Your task to perform on an android device: turn on priority inbox in the gmail app Image 0: 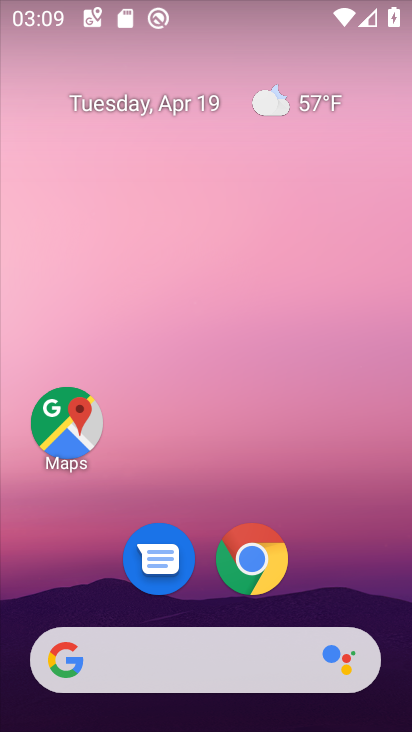
Step 0: drag from (208, 561) to (212, 96)
Your task to perform on an android device: turn on priority inbox in the gmail app Image 1: 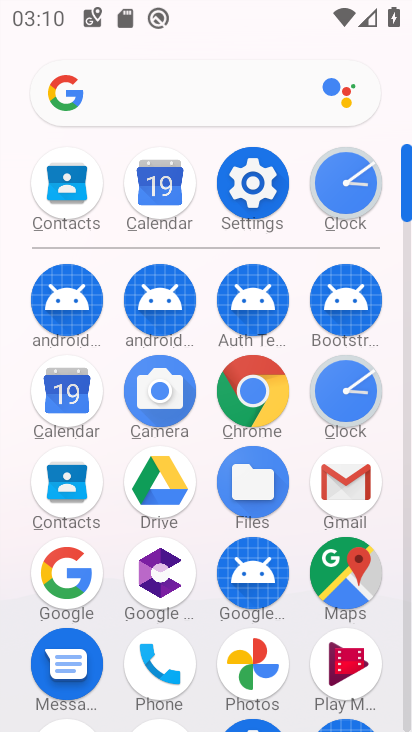
Step 1: click (348, 477)
Your task to perform on an android device: turn on priority inbox in the gmail app Image 2: 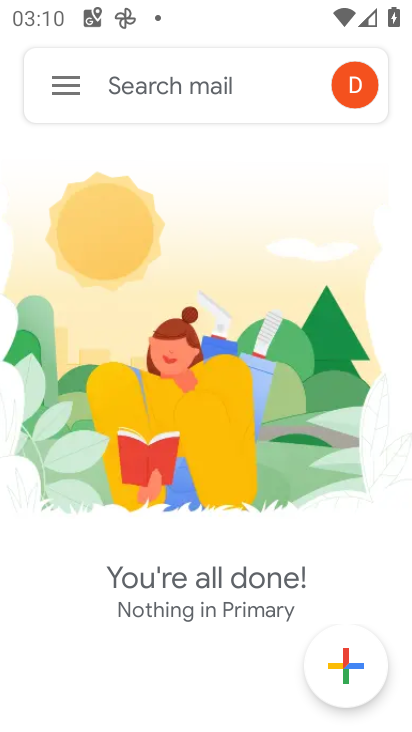
Step 2: click (73, 76)
Your task to perform on an android device: turn on priority inbox in the gmail app Image 3: 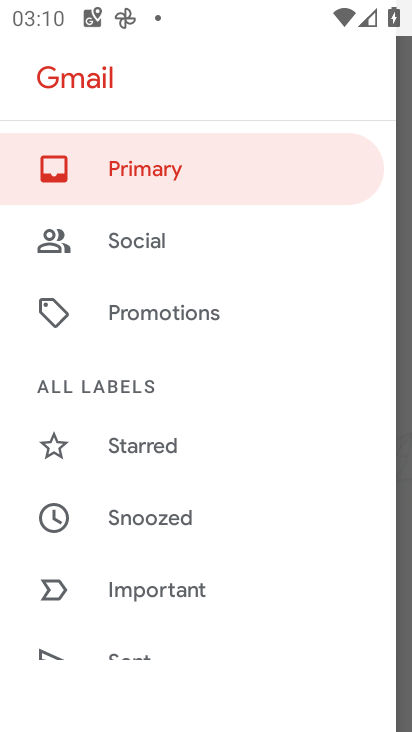
Step 3: drag from (203, 623) to (193, 129)
Your task to perform on an android device: turn on priority inbox in the gmail app Image 4: 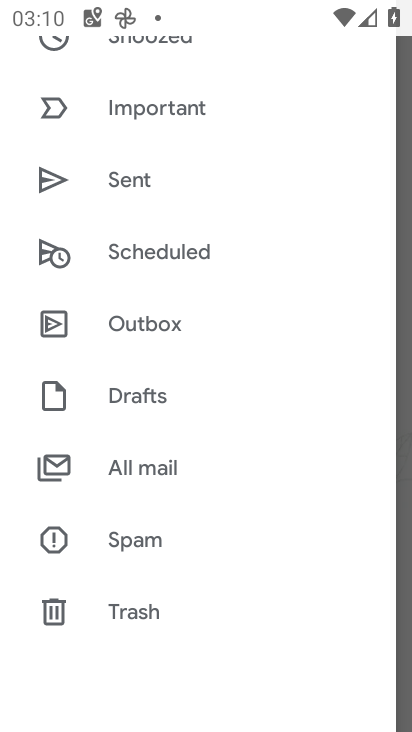
Step 4: drag from (184, 607) to (194, 71)
Your task to perform on an android device: turn on priority inbox in the gmail app Image 5: 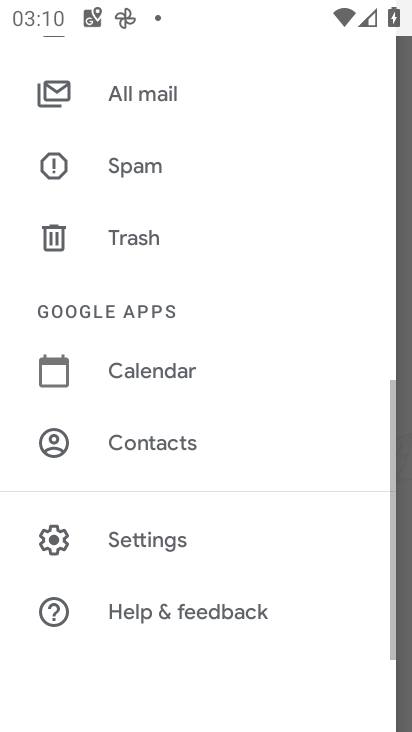
Step 5: click (188, 532)
Your task to perform on an android device: turn on priority inbox in the gmail app Image 6: 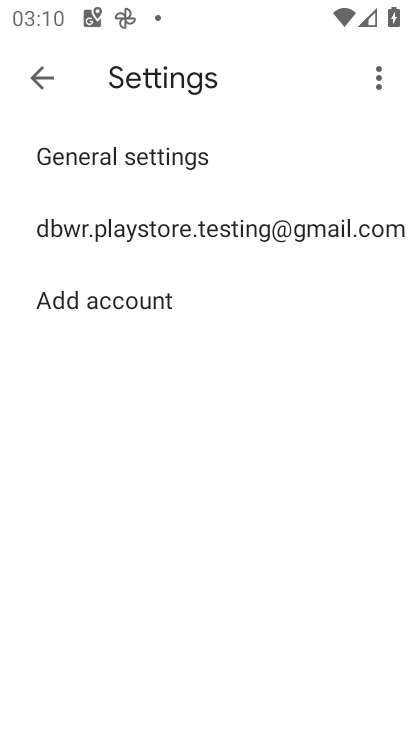
Step 6: click (198, 223)
Your task to perform on an android device: turn on priority inbox in the gmail app Image 7: 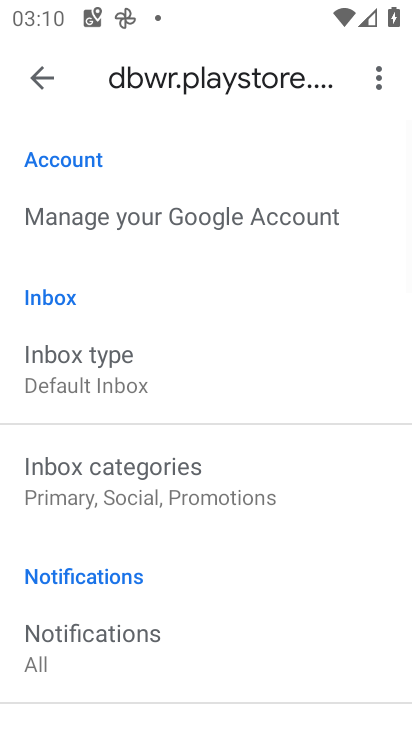
Step 7: click (165, 368)
Your task to perform on an android device: turn on priority inbox in the gmail app Image 8: 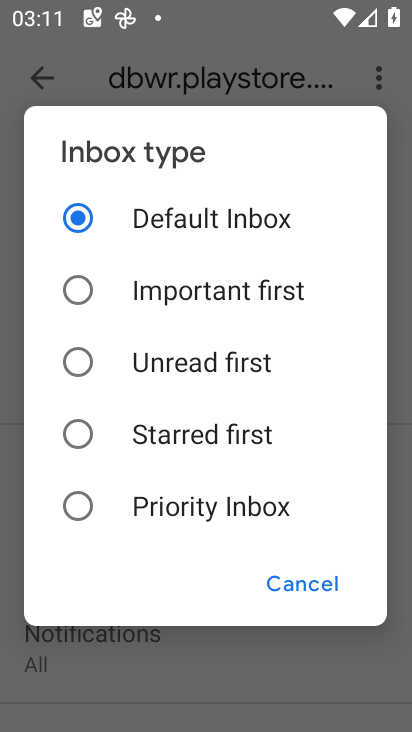
Step 8: click (88, 496)
Your task to perform on an android device: turn on priority inbox in the gmail app Image 9: 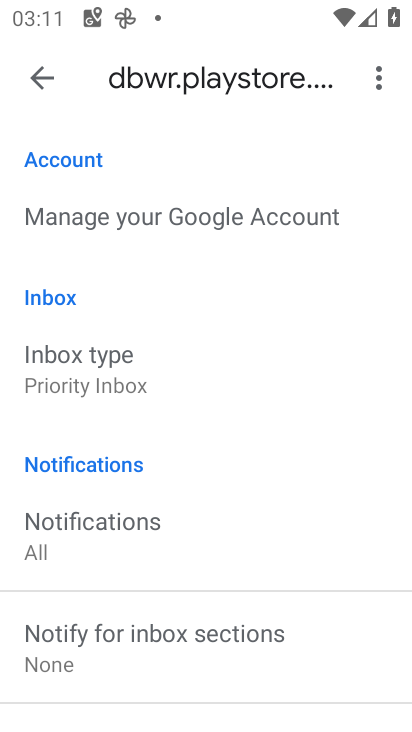
Step 9: task complete